Your task to perform on an android device: snooze an email in the gmail app Image 0: 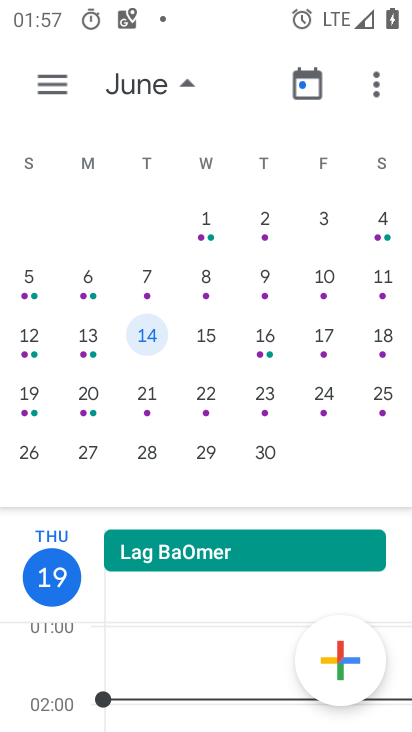
Step 0: press home button
Your task to perform on an android device: snooze an email in the gmail app Image 1: 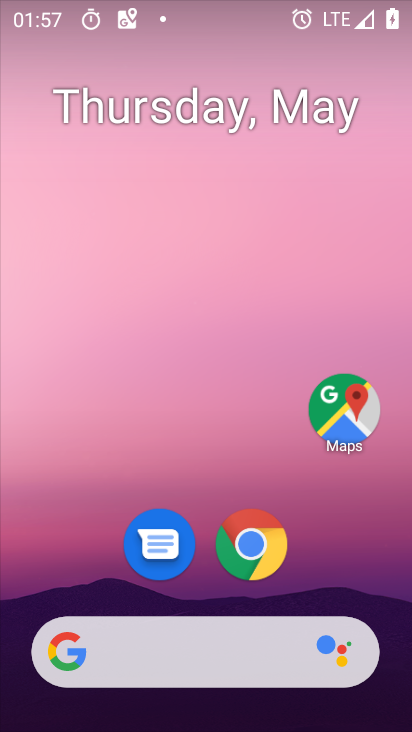
Step 1: drag from (341, 507) to (330, 97)
Your task to perform on an android device: snooze an email in the gmail app Image 2: 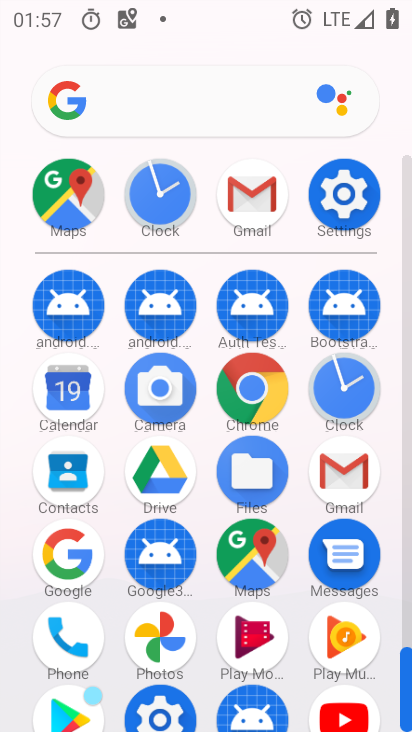
Step 2: click (282, 201)
Your task to perform on an android device: snooze an email in the gmail app Image 3: 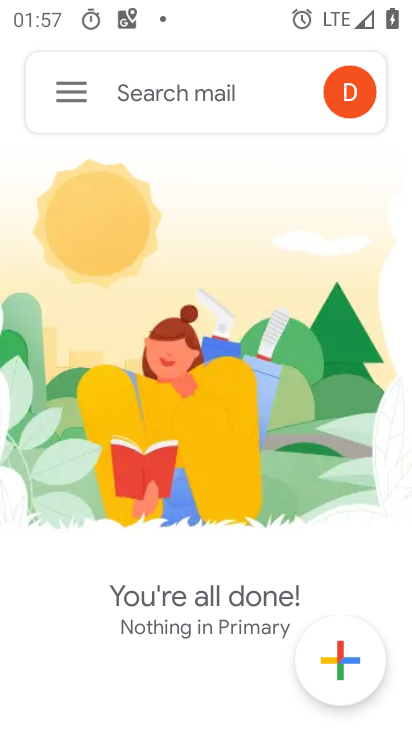
Step 3: click (76, 88)
Your task to perform on an android device: snooze an email in the gmail app Image 4: 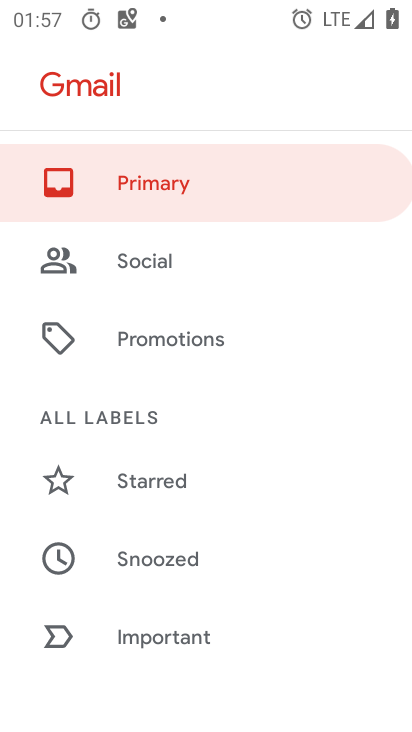
Step 4: drag from (280, 562) to (314, 429)
Your task to perform on an android device: snooze an email in the gmail app Image 5: 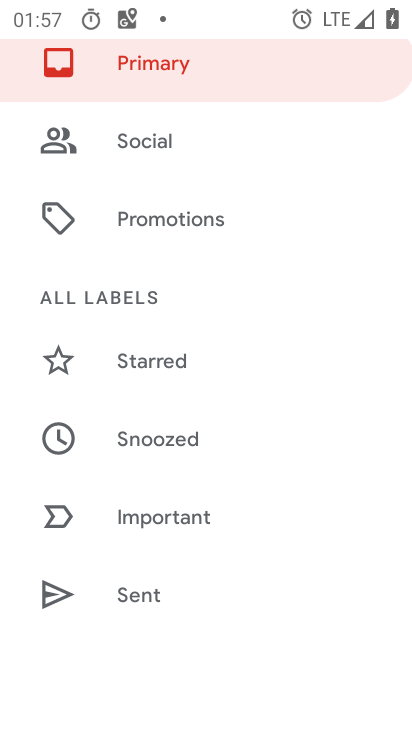
Step 5: drag from (296, 596) to (303, 439)
Your task to perform on an android device: snooze an email in the gmail app Image 6: 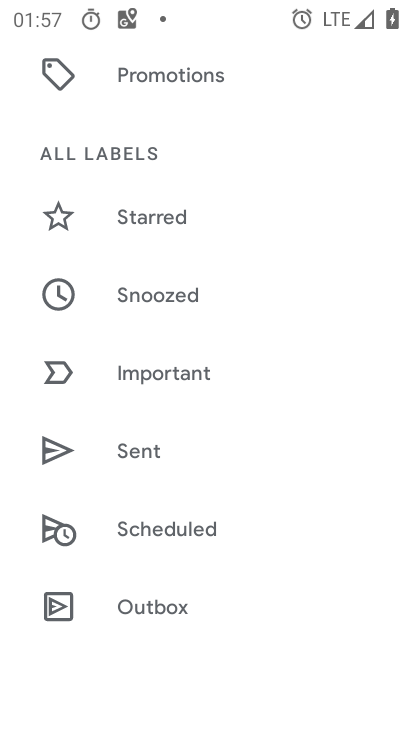
Step 6: drag from (297, 597) to (288, 452)
Your task to perform on an android device: snooze an email in the gmail app Image 7: 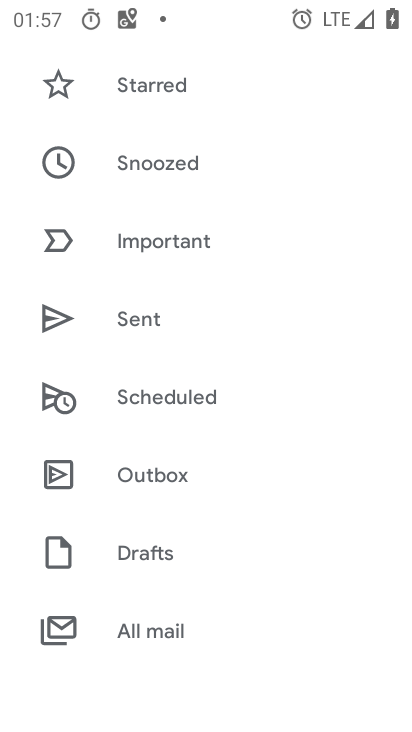
Step 7: drag from (281, 591) to (275, 472)
Your task to perform on an android device: snooze an email in the gmail app Image 8: 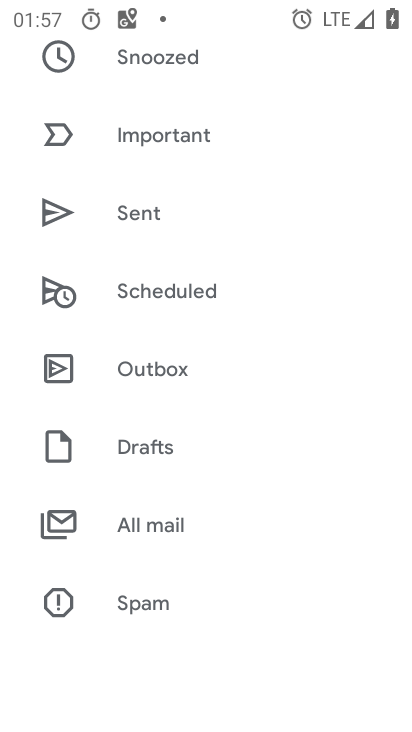
Step 8: drag from (265, 543) to (290, 403)
Your task to perform on an android device: snooze an email in the gmail app Image 9: 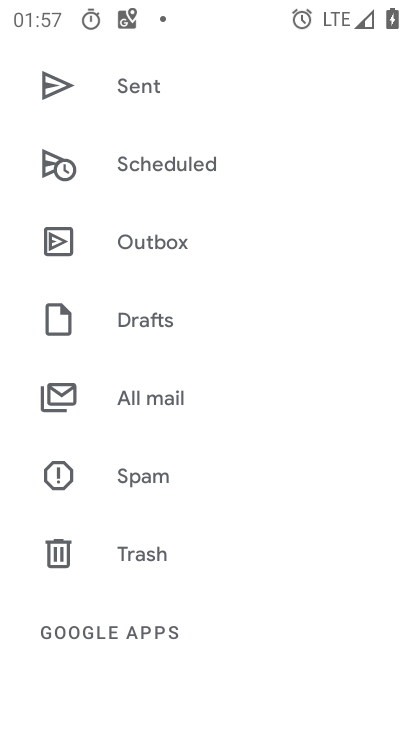
Step 9: drag from (291, 617) to (330, 430)
Your task to perform on an android device: snooze an email in the gmail app Image 10: 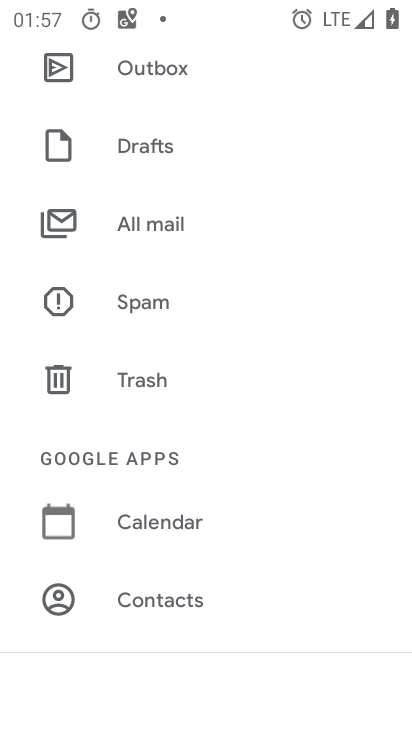
Step 10: drag from (343, 576) to (343, 477)
Your task to perform on an android device: snooze an email in the gmail app Image 11: 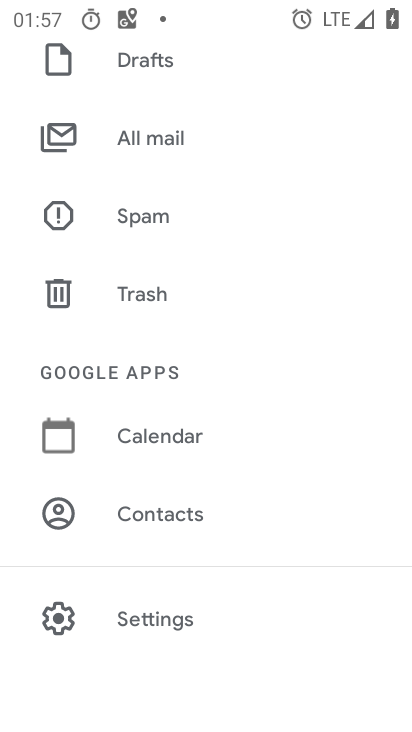
Step 11: drag from (320, 376) to (314, 500)
Your task to perform on an android device: snooze an email in the gmail app Image 12: 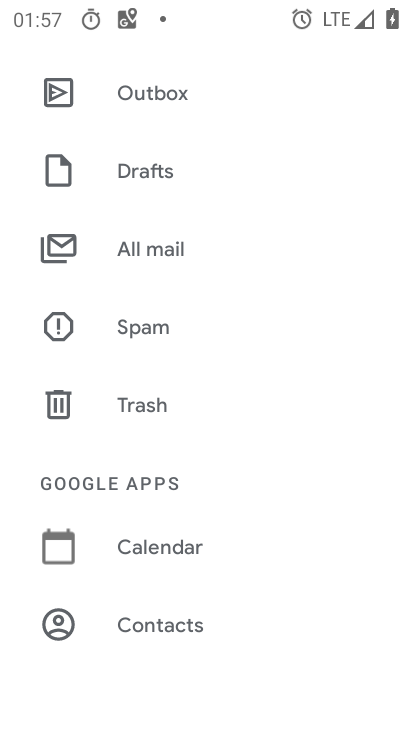
Step 12: drag from (312, 324) to (312, 443)
Your task to perform on an android device: snooze an email in the gmail app Image 13: 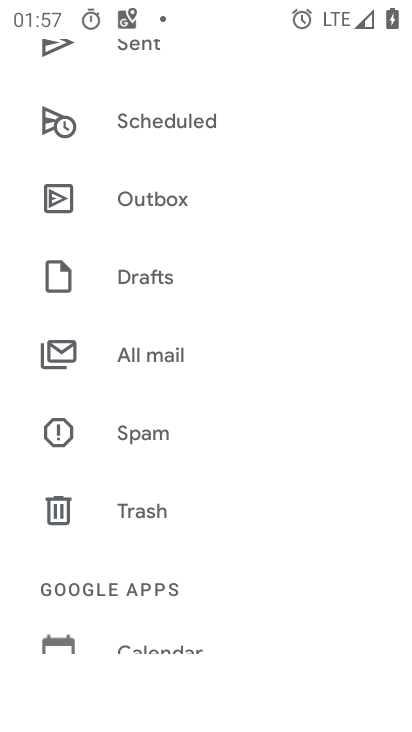
Step 13: drag from (282, 271) to (294, 405)
Your task to perform on an android device: snooze an email in the gmail app Image 14: 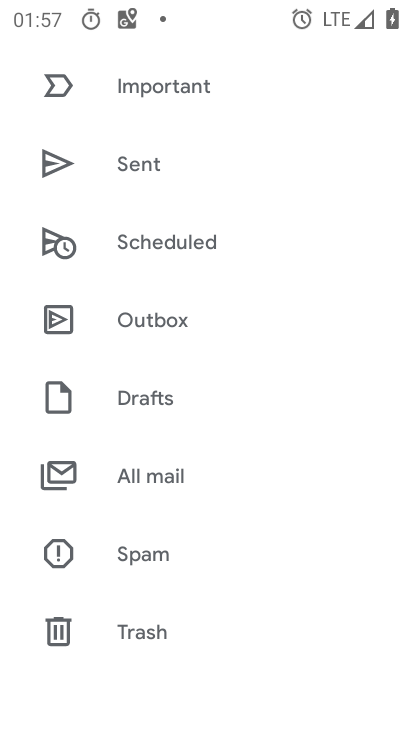
Step 14: drag from (278, 236) to (266, 358)
Your task to perform on an android device: snooze an email in the gmail app Image 15: 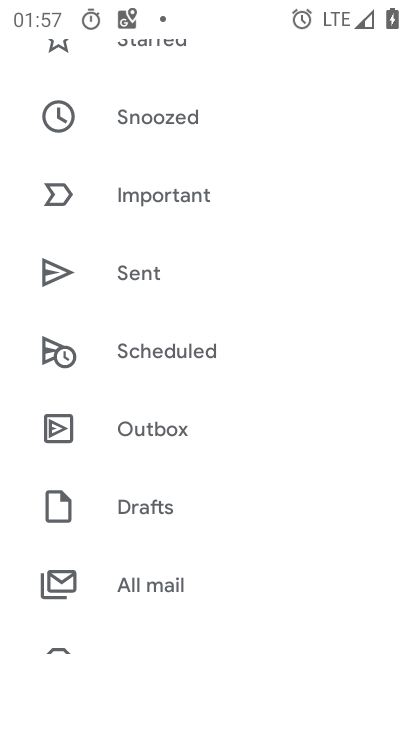
Step 15: drag from (268, 239) to (264, 325)
Your task to perform on an android device: snooze an email in the gmail app Image 16: 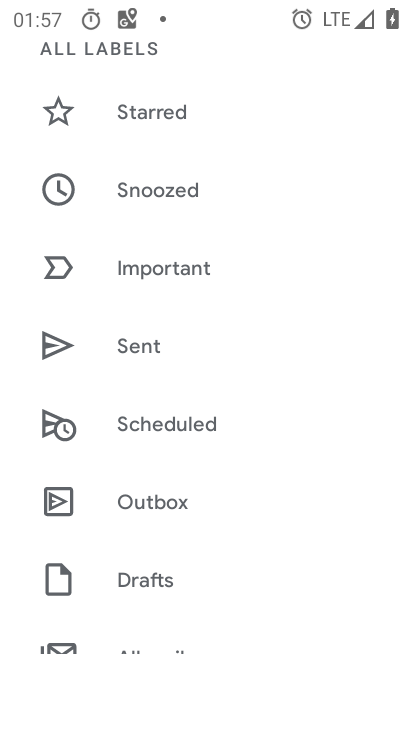
Step 16: drag from (267, 223) to (261, 342)
Your task to perform on an android device: snooze an email in the gmail app Image 17: 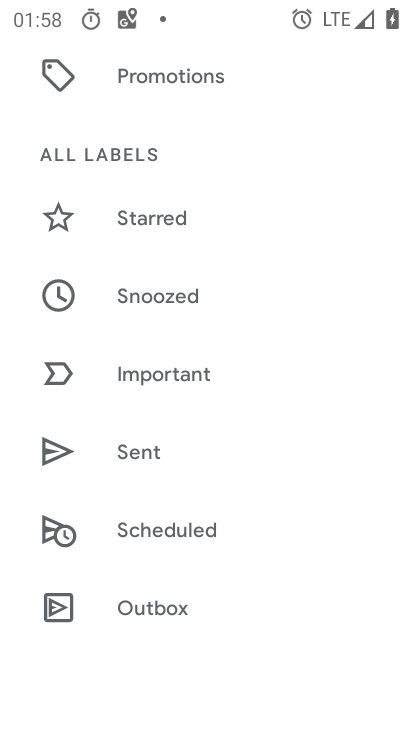
Step 17: click (181, 301)
Your task to perform on an android device: snooze an email in the gmail app Image 18: 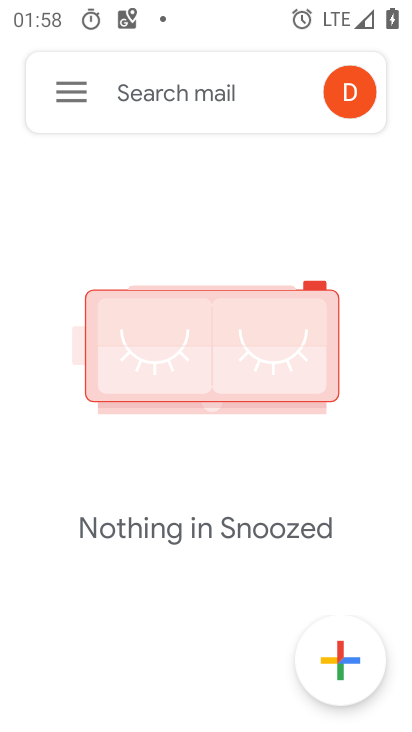
Step 18: task complete